Your task to perform on an android device: find snoozed emails in the gmail app Image 0: 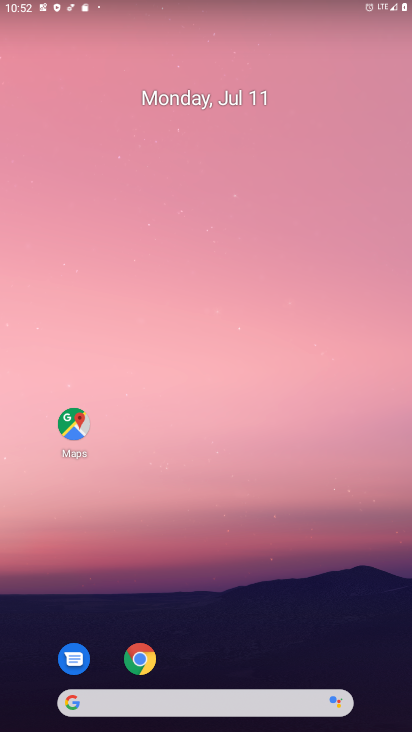
Step 0: drag from (205, 657) to (193, 0)
Your task to perform on an android device: find snoozed emails in the gmail app Image 1: 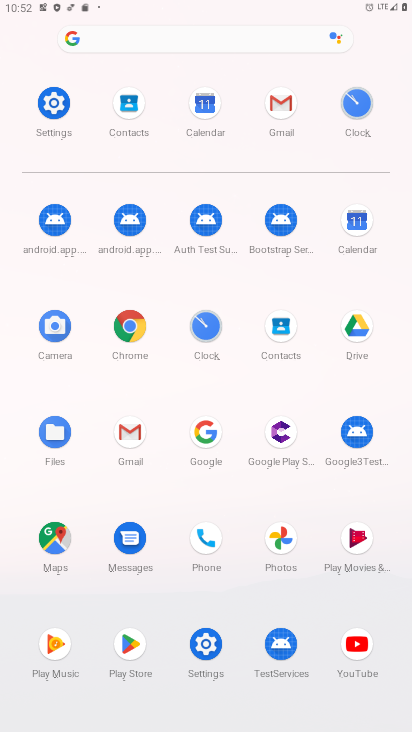
Step 1: click (135, 425)
Your task to perform on an android device: find snoozed emails in the gmail app Image 2: 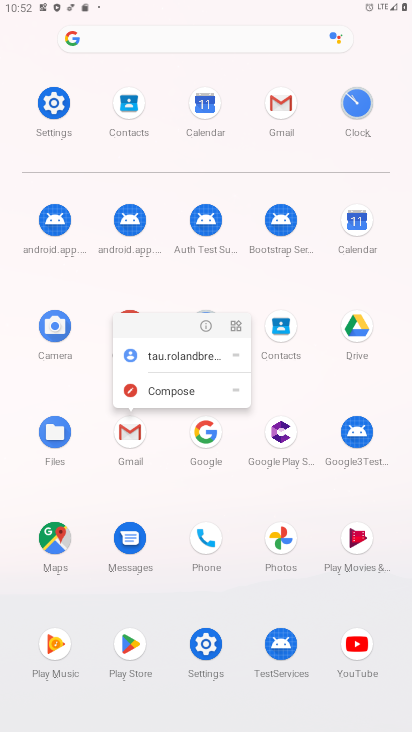
Step 2: click (207, 323)
Your task to perform on an android device: find snoozed emails in the gmail app Image 3: 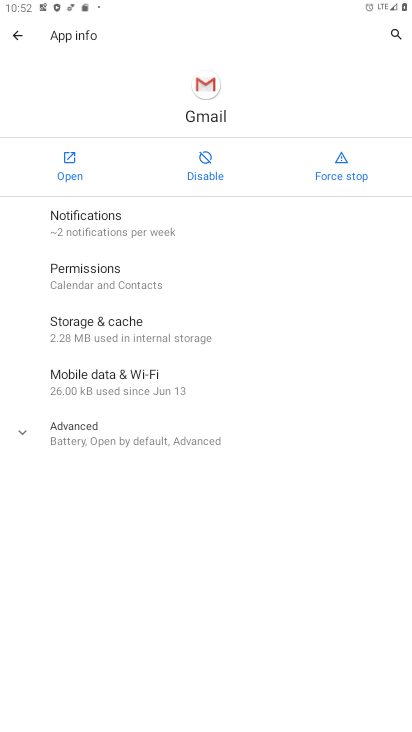
Step 3: click (66, 172)
Your task to perform on an android device: find snoozed emails in the gmail app Image 4: 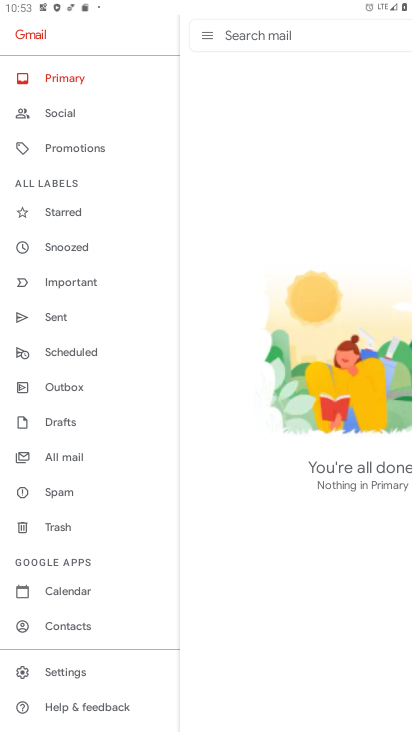
Step 4: drag from (242, 648) to (271, 316)
Your task to perform on an android device: find snoozed emails in the gmail app Image 5: 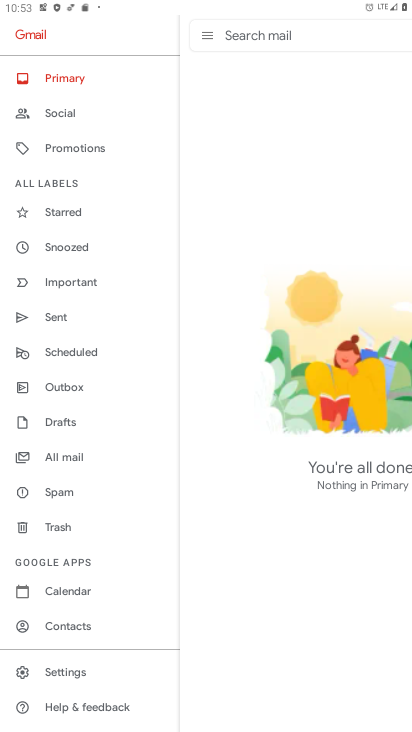
Step 5: click (60, 248)
Your task to perform on an android device: find snoozed emails in the gmail app Image 6: 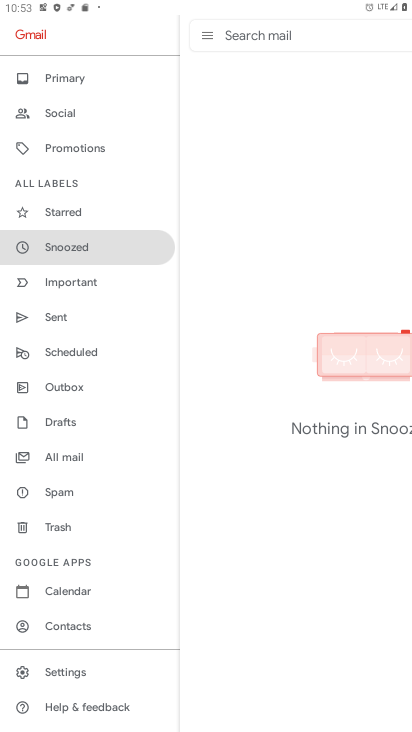
Step 6: task complete